Your task to perform on an android device: turn on notifications settings in the gmail app Image 0: 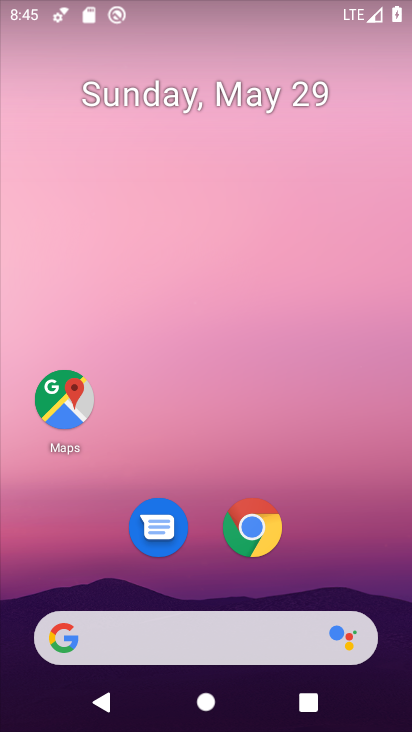
Step 0: press home button
Your task to perform on an android device: turn on notifications settings in the gmail app Image 1: 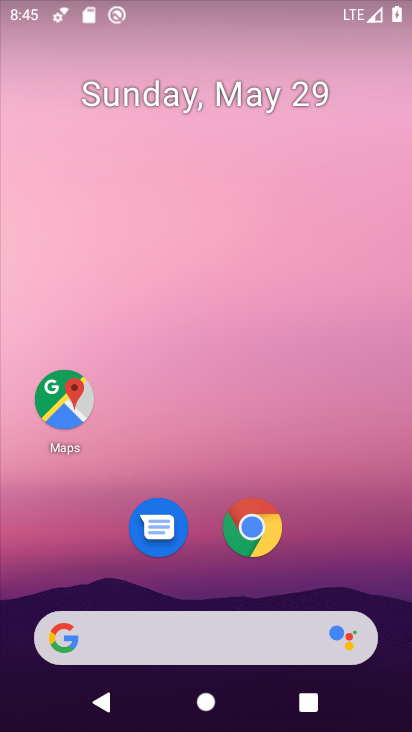
Step 1: drag from (202, 582) to (208, 35)
Your task to perform on an android device: turn on notifications settings in the gmail app Image 2: 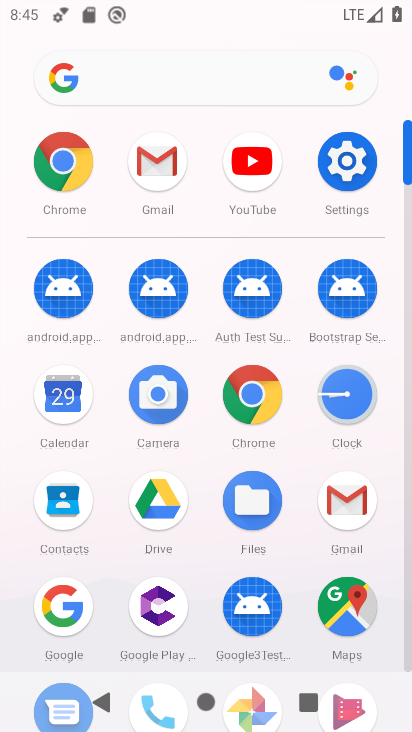
Step 2: click (348, 491)
Your task to perform on an android device: turn on notifications settings in the gmail app Image 3: 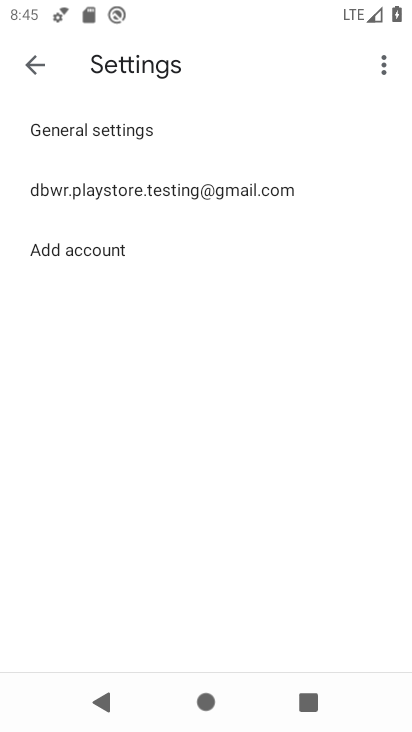
Step 3: click (169, 121)
Your task to perform on an android device: turn on notifications settings in the gmail app Image 4: 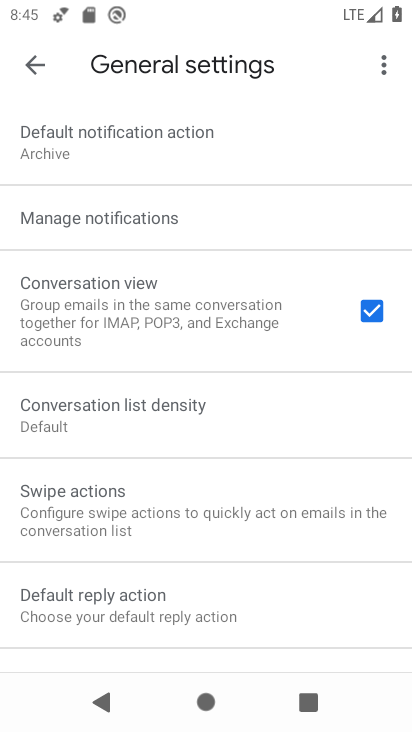
Step 4: click (190, 213)
Your task to perform on an android device: turn on notifications settings in the gmail app Image 5: 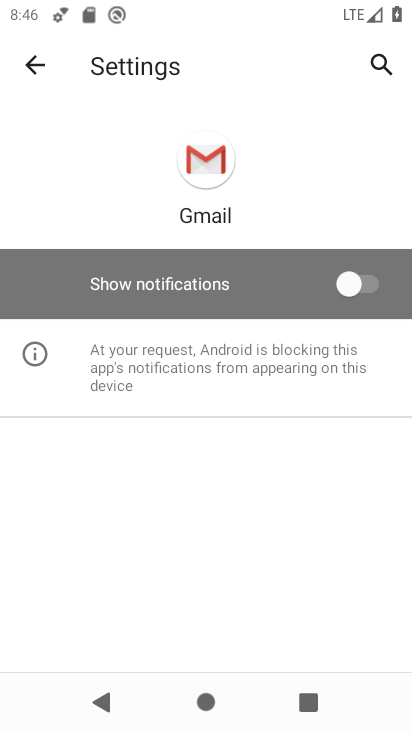
Step 5: click (367, 284)
Your task to perform on an android device: turn on notifications settings in the gmail app Image 6: 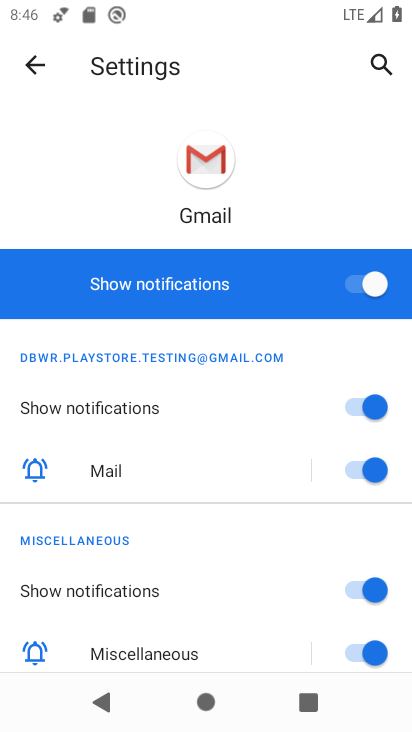
Step 6: task complete